Your task to perform on an android device: turn on improve location accuracy Image 0: 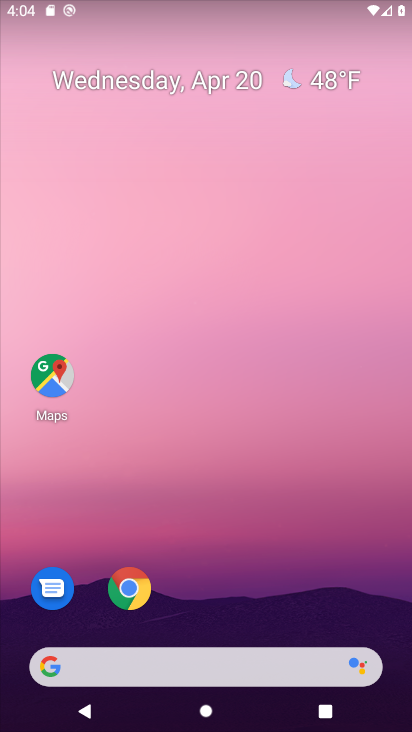
Step 0: drag from (324, 608) to (331, 207)
Your task to perform on an android device: turn on improve location accuracy Image 1: 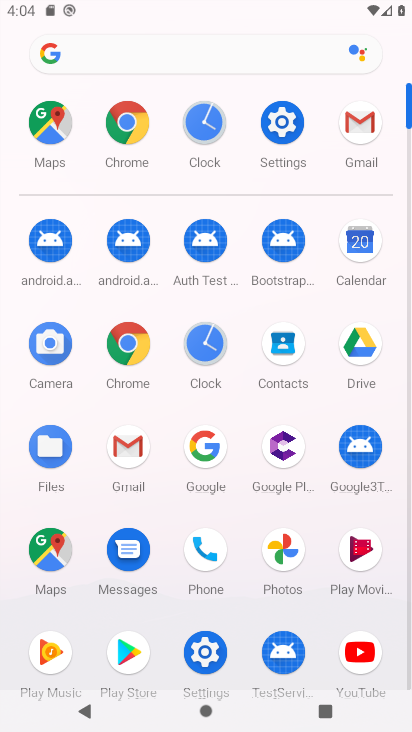
Step 1: click (285, 132)
Your task to perform on an android device: turn on improve location accuracy Image 2: 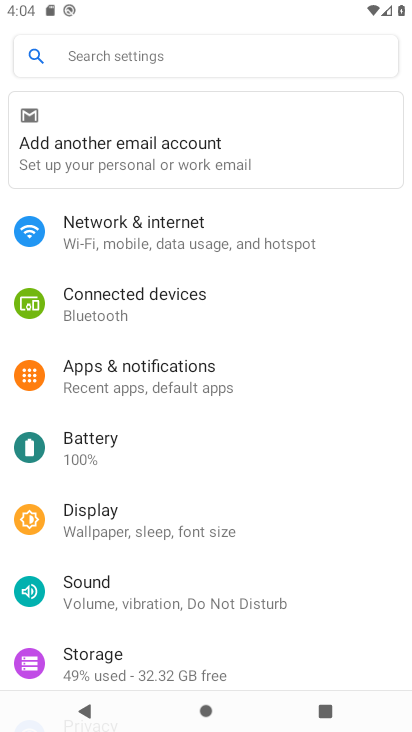
Step 2: drag from (334, 535) to (326, 411)
Your task to perform on an android device: turn on improve location accuracy Image 3: 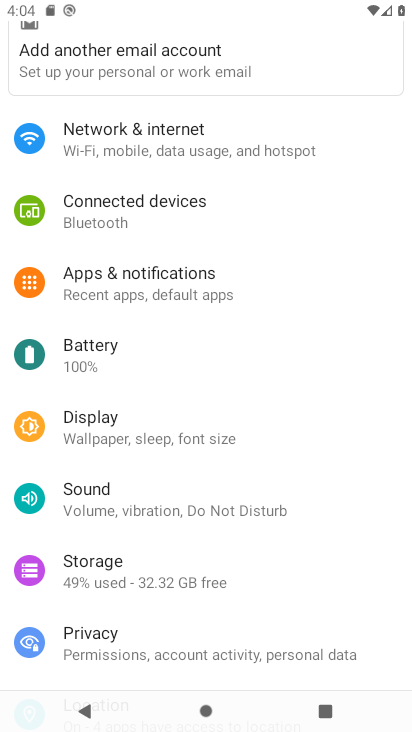
Step 3: drag from (324, 563) to (356, 390)
Your task to perform on an android device: turn on improve location accuracy Image 4: 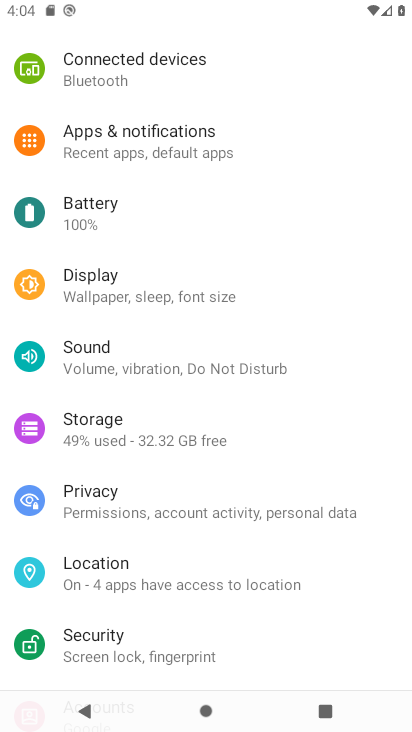
Step 4: drag from (325, 625) to (330, 448)
Your task to perform on an android device: turn on improve location accuracy Image 5: 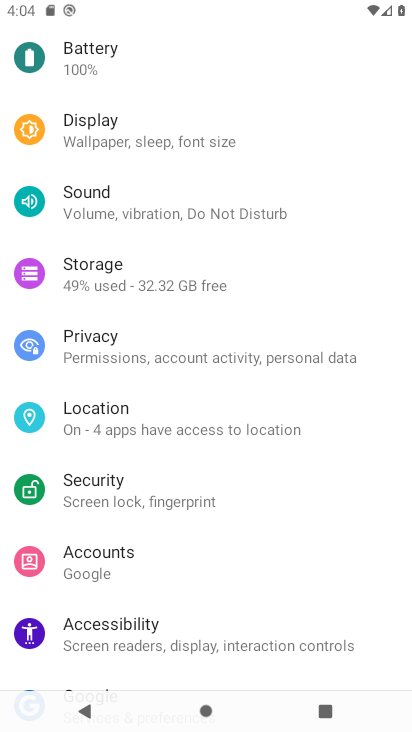
Step 5: drag from (373, 642) to (374, 430)
Your task to perform on an android device: turn on improve location accuracy Image 6: 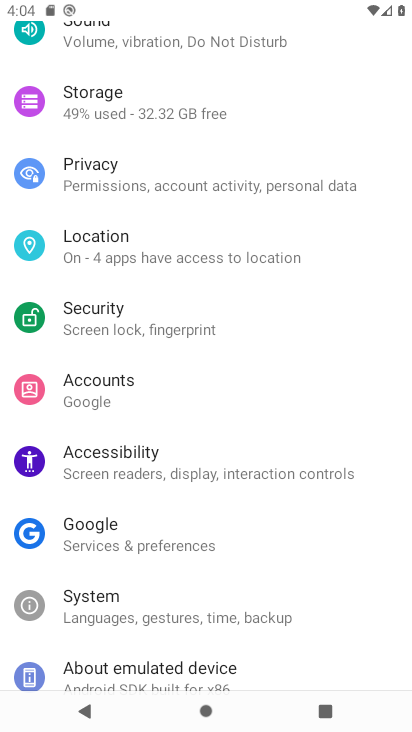
Step 6: drag from (367, 611) to (388, 460)
Your task to perform on an android device: turn on improve location accuracy Image 7: 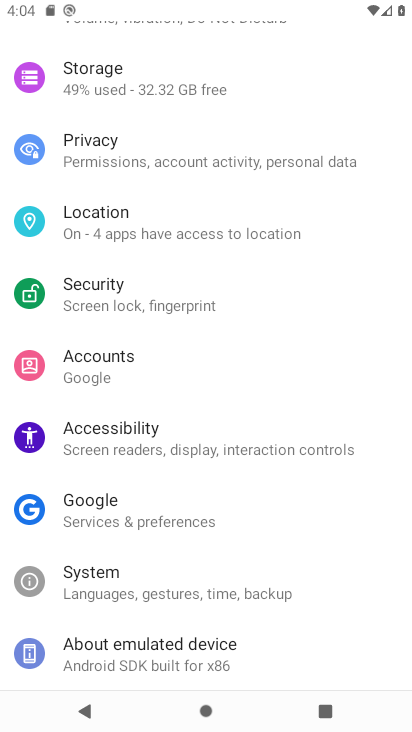
Step 7: drag from (340, 330) to (346, 532)
Your task to perform on an android device: turn on improve location accuracy Image 8: 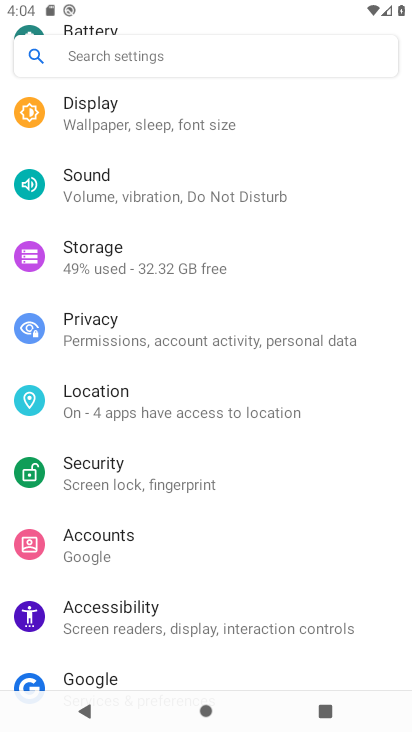
Step 8: drag from (383, 318) to (363, 507)
Your task to perform on an android device: turn on improve location accuracy Image 9: 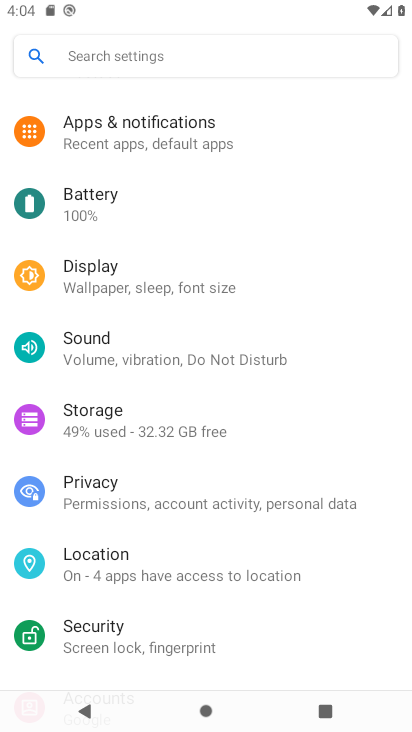
Step 9: drag from (360, 330) to (356, 509)
Your task to perform on an android device: turn on improve location accuracy Image 10: 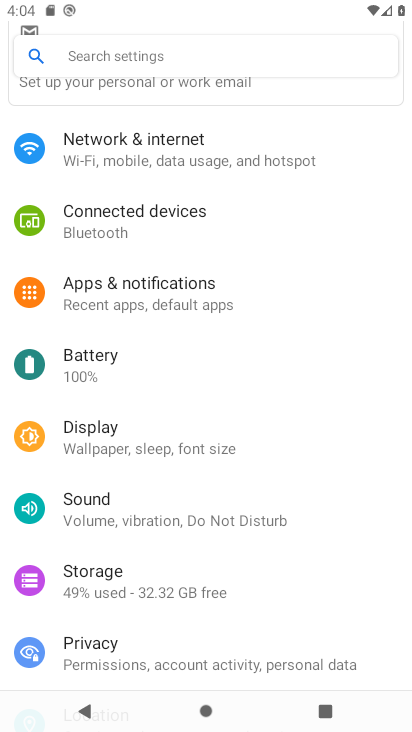
Step 10: drag from (312, 563) to (321, 375)
Your task to perform on an android device: turn on improve location accuracy Image 11: 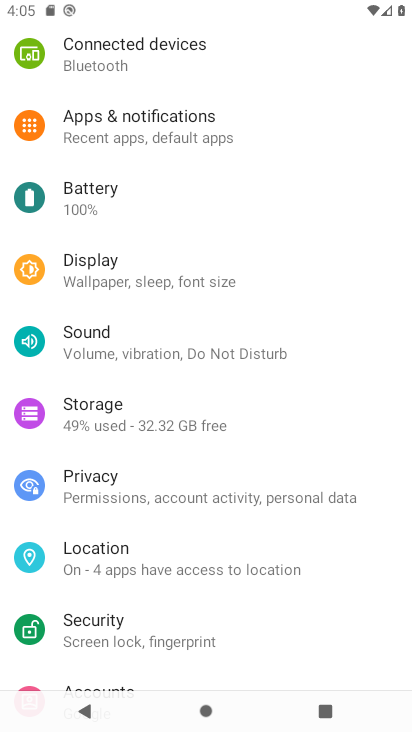
Step 11: click (356, 457)
Your task to perform on an android device: turn on improve location accuracy Image 12: 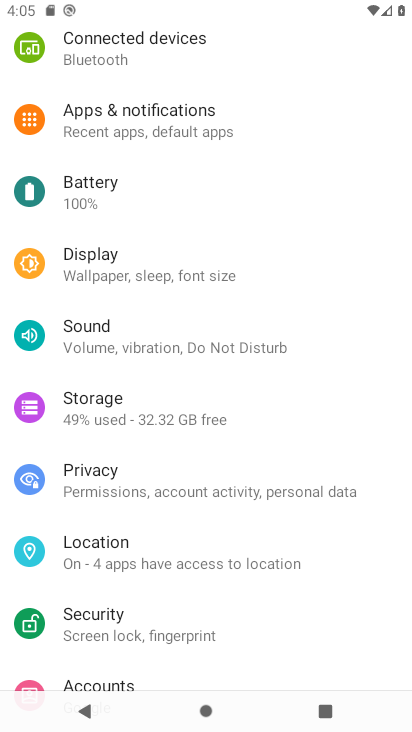
Step 12: click (253, 567)
Your task to perform on an android device: turn on improve location accuracy Image 13: 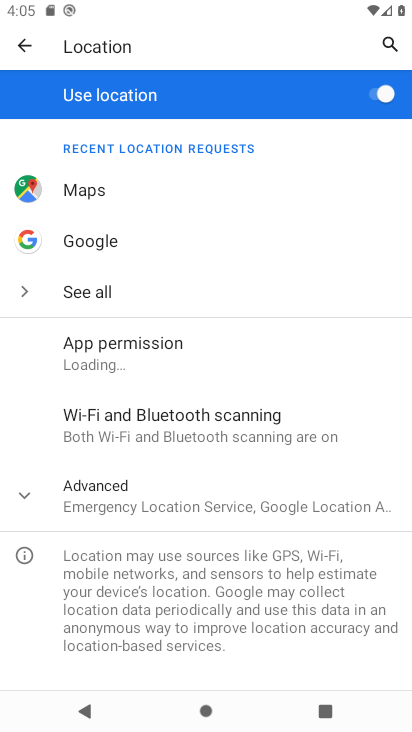
Step 13: click (239, 522)
Your task to perform on an android device: turn on improve location accuracy Image 14: 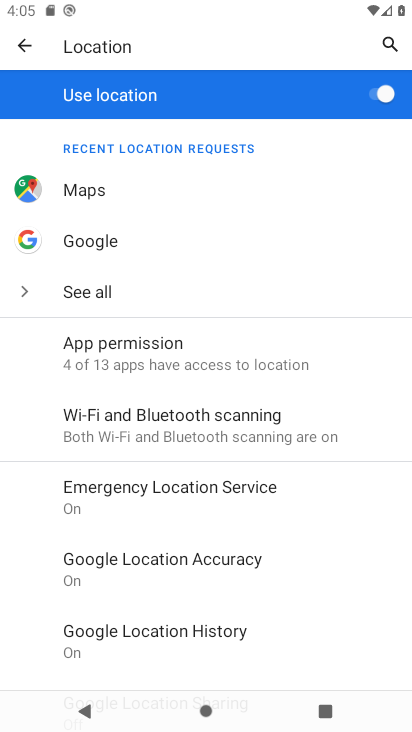
Step 14: click (201, 561)
Your task to perform on an android device: turn on improve location accuracy Image 15: 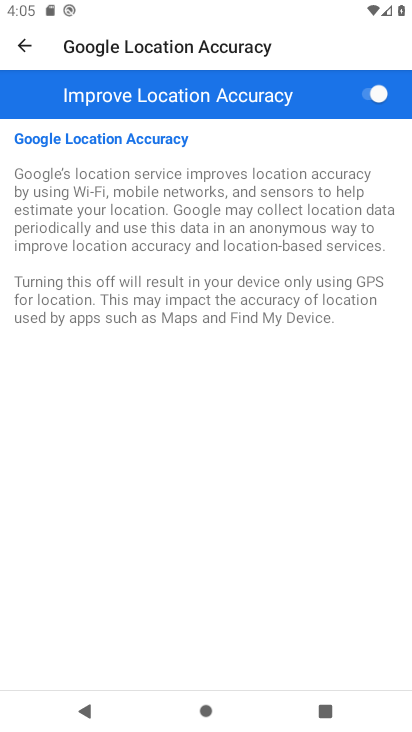
Step 15: task complete